Your task to perform on an android device: toggle airplane mode Image 0: 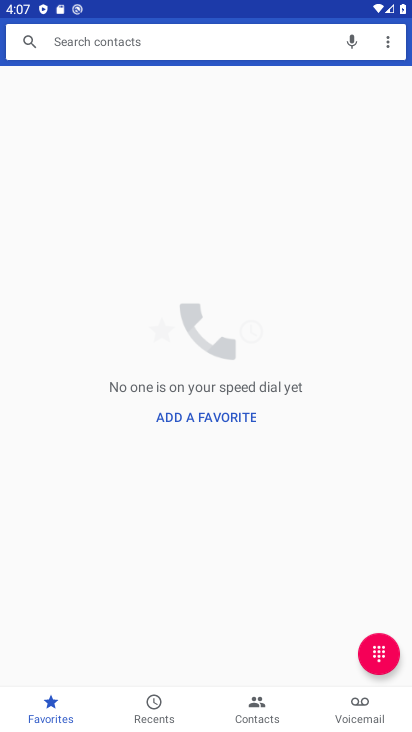
Step 0: press home button
Your task to perform on an android device: toggle airplane mode Image 1: 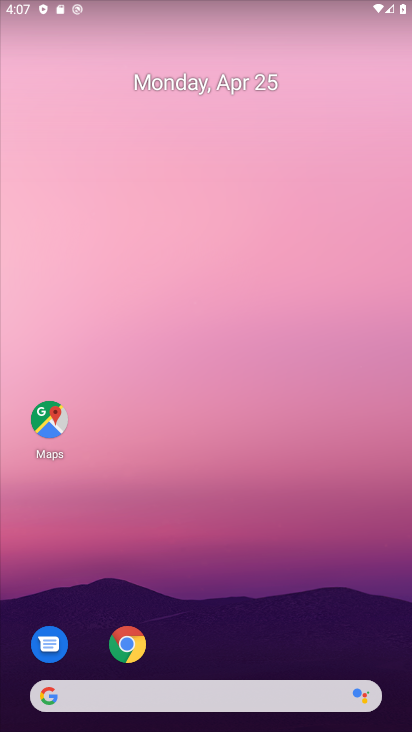
Step 1: drag from (227, 634) to (253, 105)
Your task to perform on an android device: toggle airplane mode Image 2: 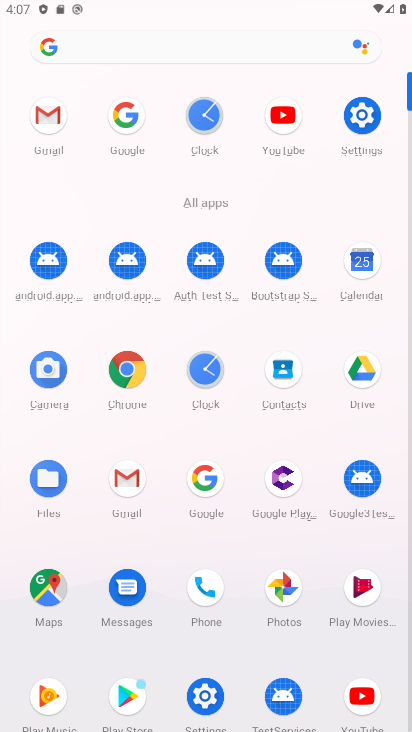
Step 2: click (356, 121)
Your task to perform on an android device: toggle airplane mode Image 3: 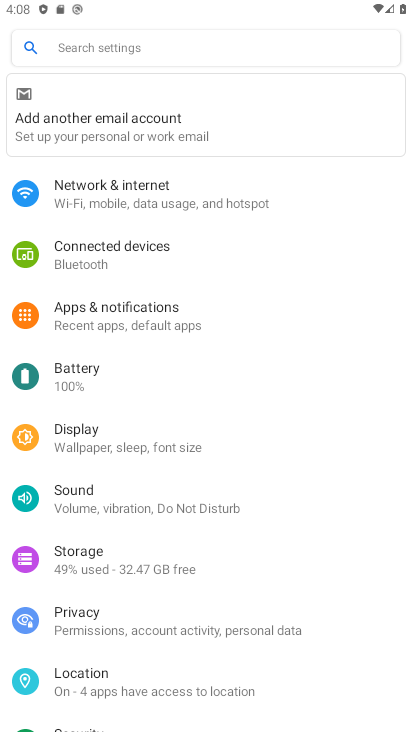
Step 3: click (170, 202)
Your task to perform on an android device: toggle airplane mode Image 4: 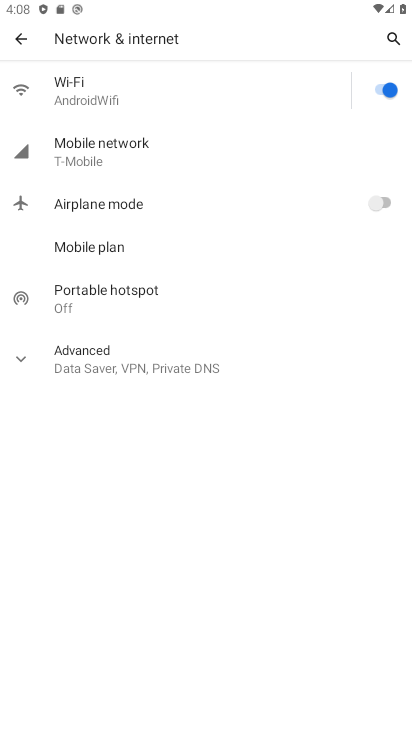
Step 4: click (386, 208)
Your task to perform on an android device: toggle airplane mode Image 5: 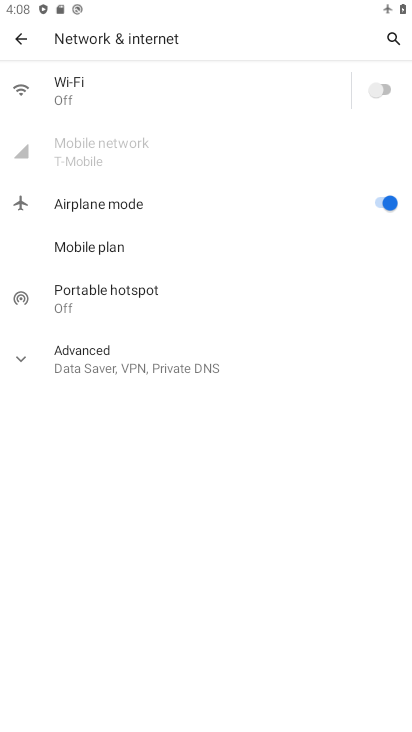
Step 5: task complete